Your task to perform on an android device: Open Youtube and go to the subscriptions tab Image 0: 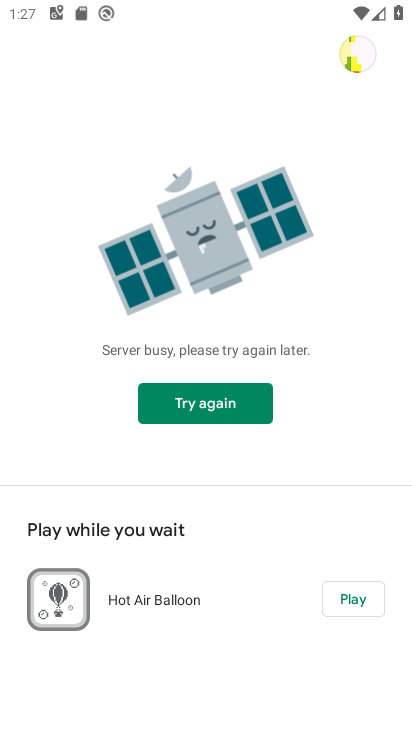
Step 0: press back button
Your task to perform on an android device: Open Youtube and go to the subscriptions tab Image 1: 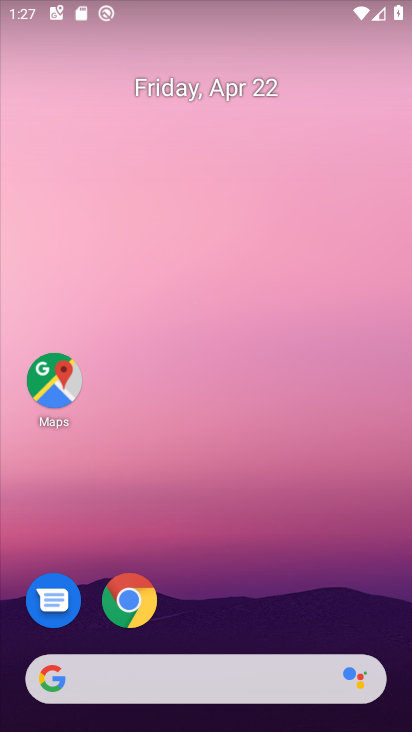
Step 1: drag from (214, 653) to (315, 154)
Your task to perform on an android device: Open Youtube and go to the subscriptions tab Image 2: 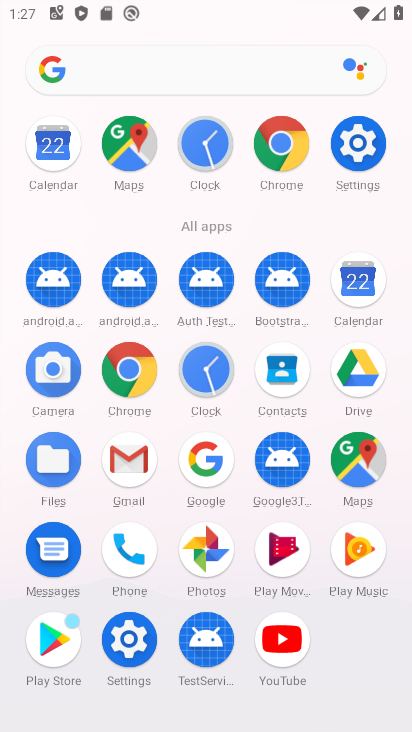
Step 2: click (282, 664)
Your task to perform on an android device: Open Youtube and go to the subscriptions tab Image 3: 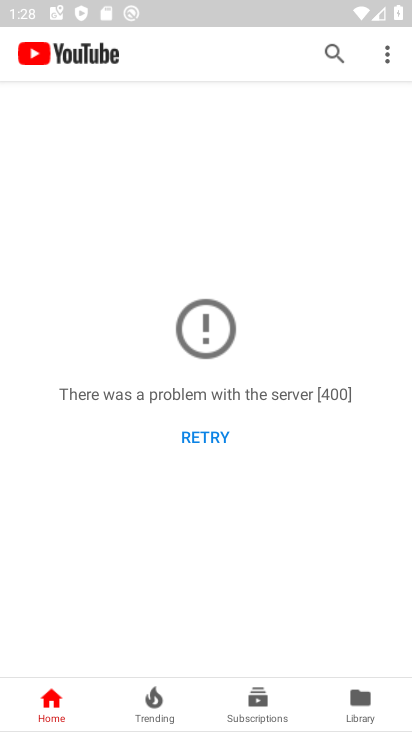
Step 3: click (266, 710)
Your task to perform on an android device: Open Youtube and go to the subscriptions tab Image 4: 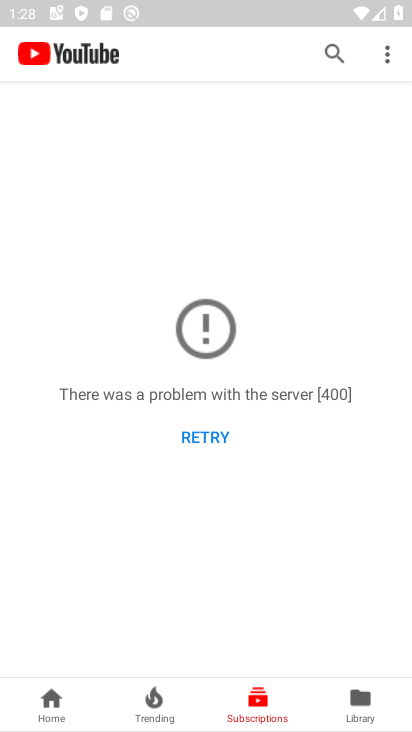
Step 4: task complete